Your task to perform on an android device: Open the map Image 0: 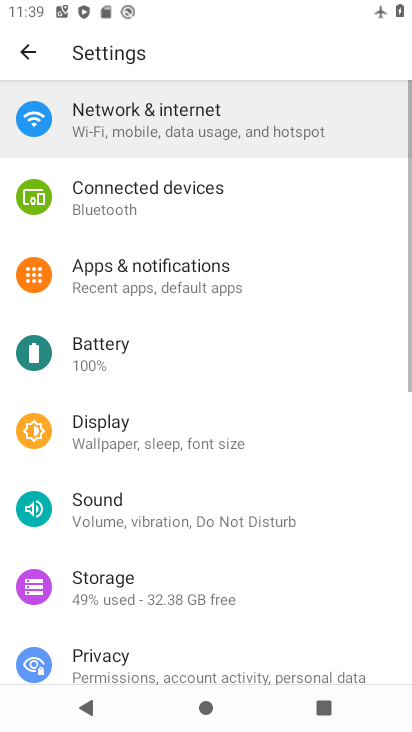
Step 0: press home button
Your task to perform on an android device: Open the map Image 1: 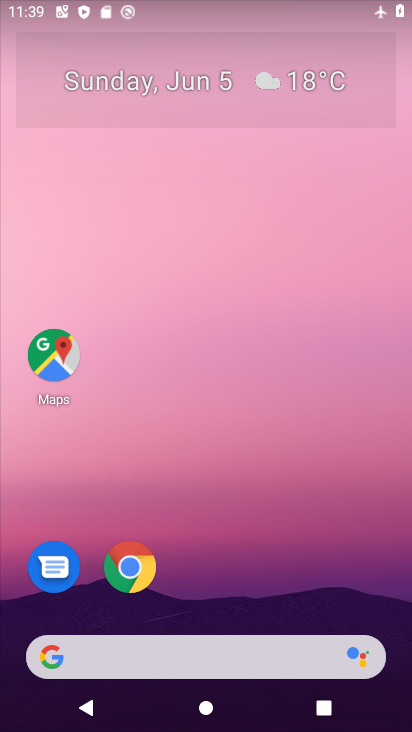
Step 1: click (45, 356)
Your task to perform on an android device: Open the map Image 2: 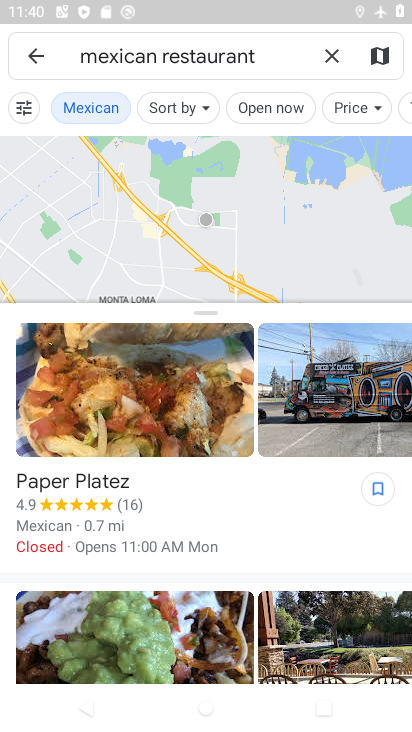
Step 2: task complete